Your task to perform on an android device: check google app version Image 0: 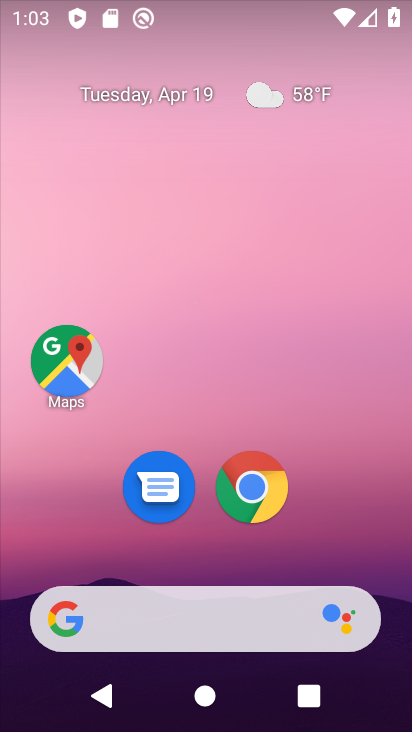
Step 0: drag from (212, 723) to (214, 50)
Your task to perform on an android device: check google app version Image 1: 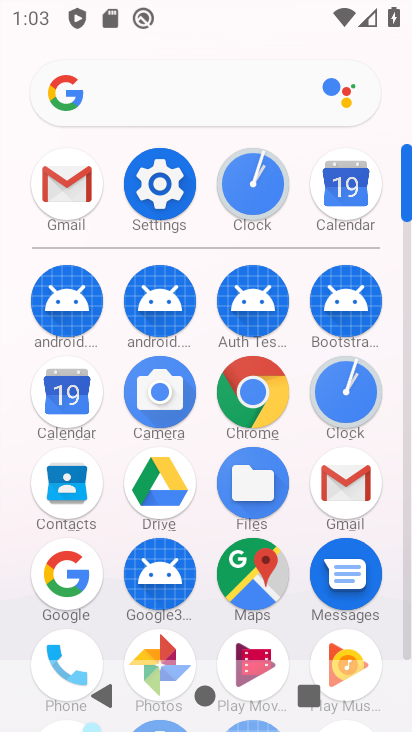
Step 1: click (73, 566)
Your task to perform on an android device: check google app version Image 2: 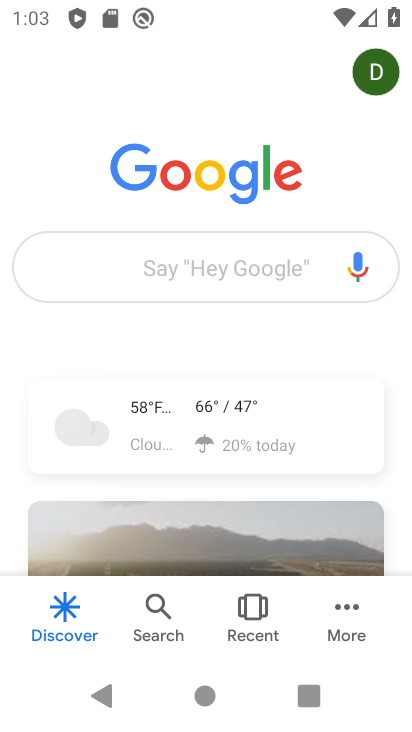
Step 2: click (351, 603)
Your task to perform on an android device: check google app version Image 3: 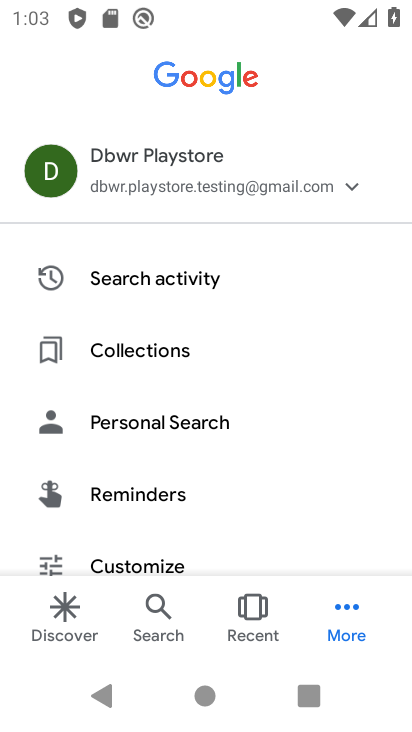
Step 3: drag from (243, 548) to (252, 130)
Your task to perform on an android device: check google app version Image 4: 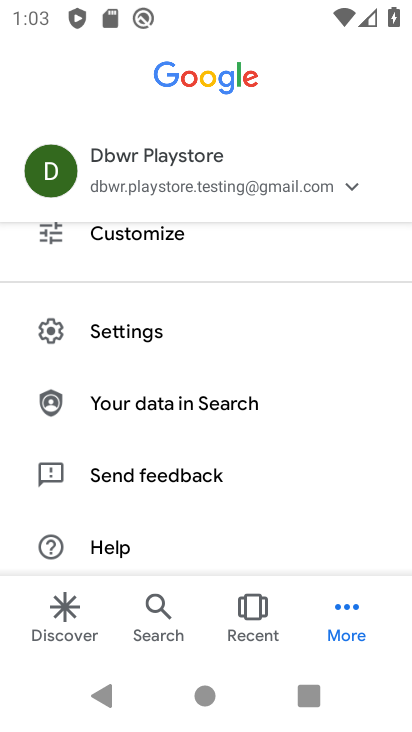
Step 4: click (124, 330)
Your task to perform on an android device: check google app version Image 5: 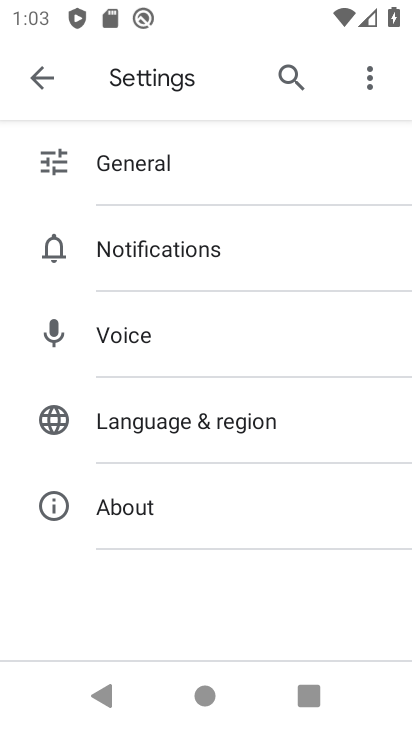
Step 5: click (123, 500)
Your task to perform on an android device: check google app version Image 6: 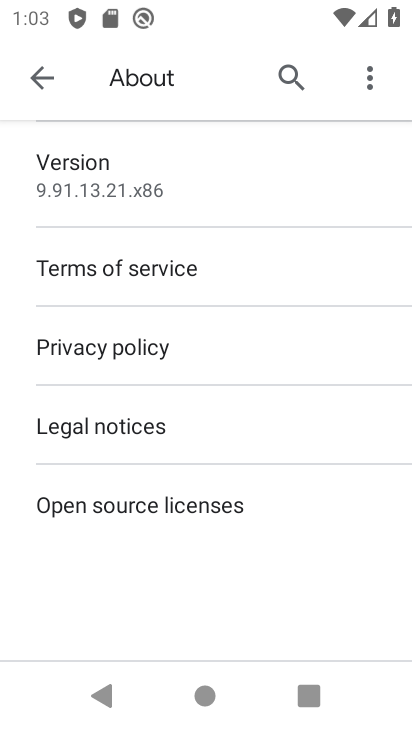
Step 6: task complete